Your task to perform on an android device: delete location history Image 0: 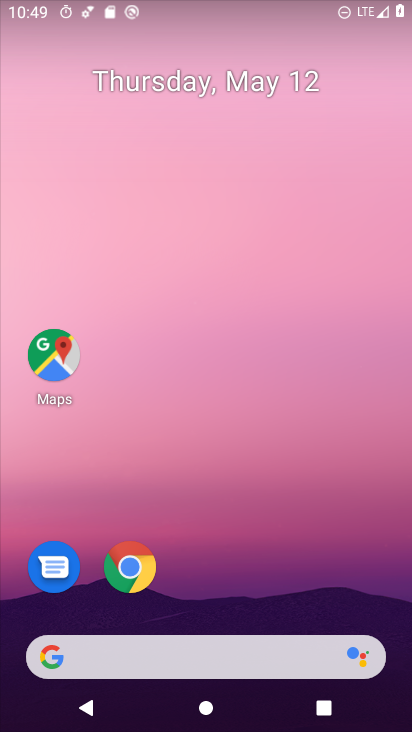
Step 0: drag from (186, 601) to (167, 207)
Your task to perform on an android device: delete location history Image 1: 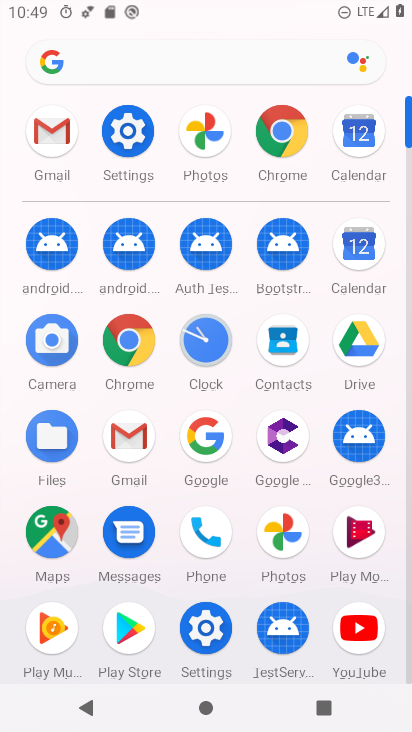
Step 1: click (127, 143)
Your task to perform on an android device: delete location history Image 2: 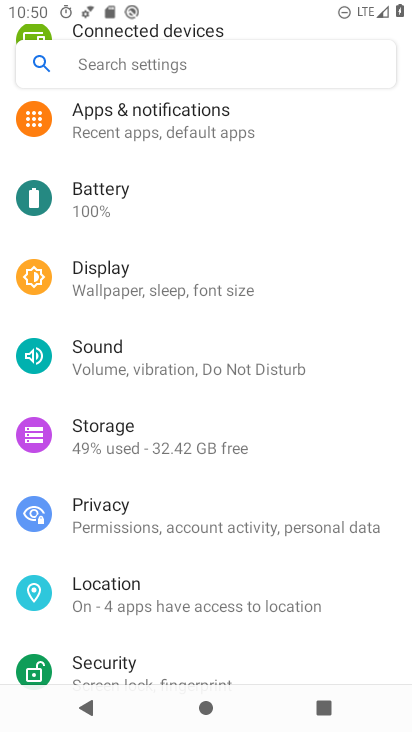
Step 2: click (149, 590)
Your task to perform on an android device: delete location history Image 3: 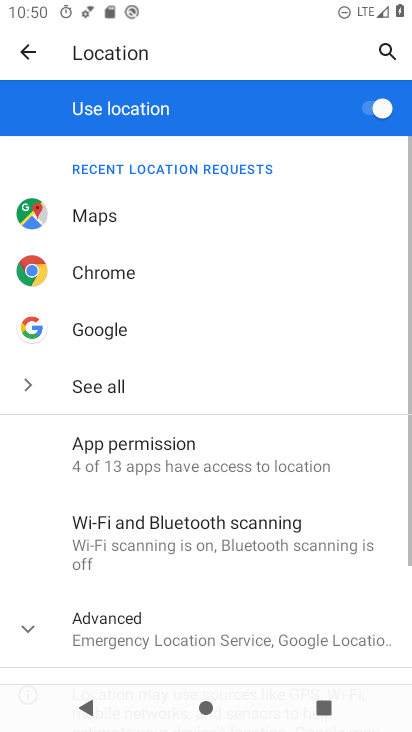
Step 3: click (124, 625)
Your task to perform on an android device: delete location history Image 4: 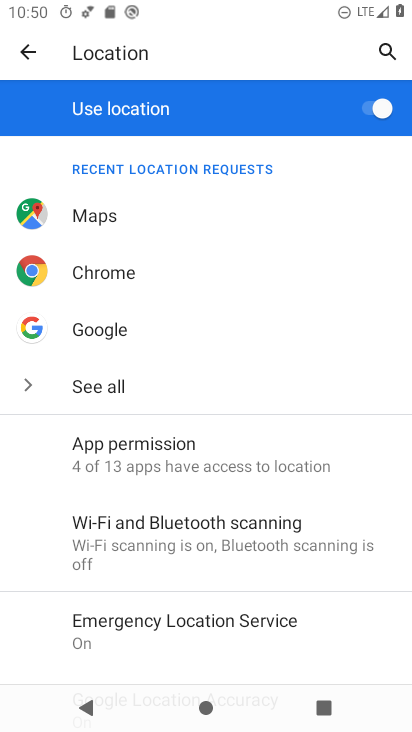
Step 4: drag from (189, 545) to (272, 265)
Your task to perform on an android device: delete location history Image 5: 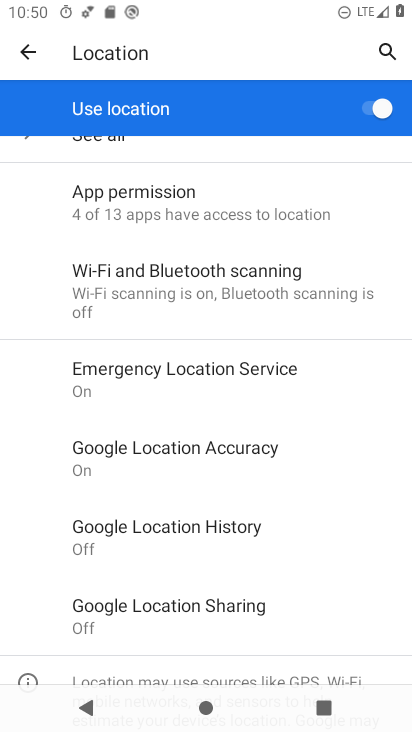
Step 5: click (217, 534)
Your task to perform on an android device: delete location history Image 6: 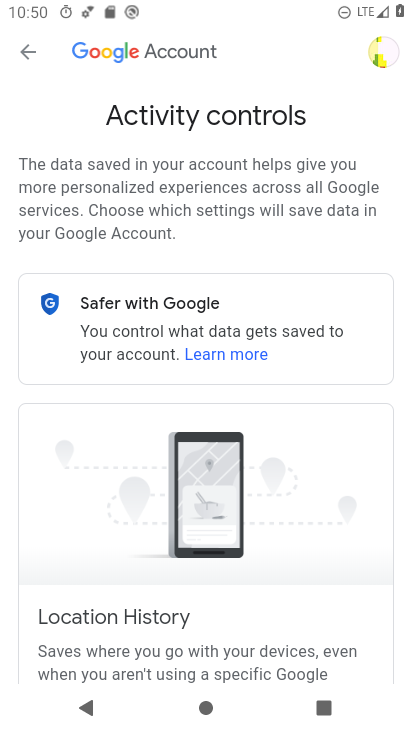
Step 6: drag from (227, 582) to (260, 274)
Your task to perform on an android device: delete location history Image 7: 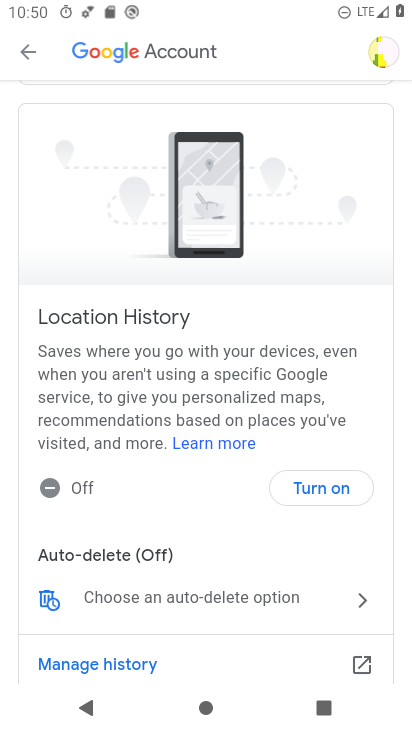
Step 7: click (128, 592)
Your task to perform on an android device: delete location history Image 8: 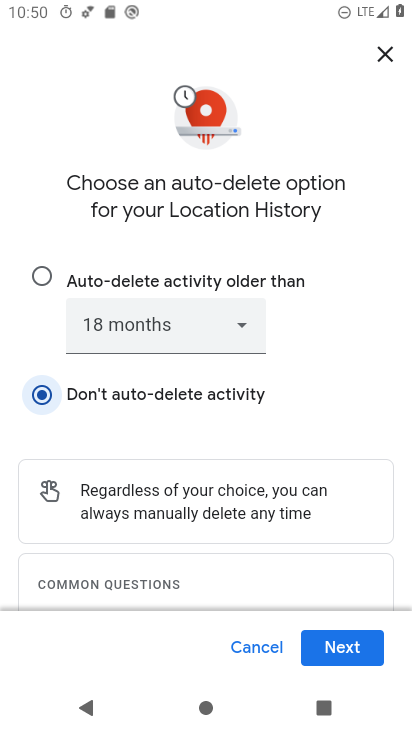
Step 8: click (356, 641)
Your task to perform on an android device: delete location history Image 9: 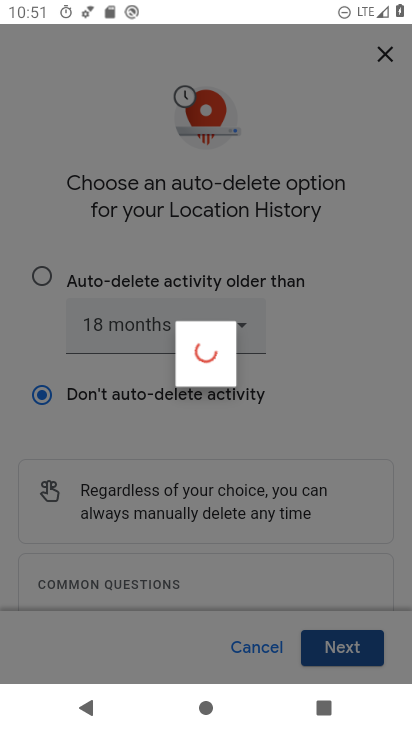
Step 9: drag from (264, 491) to (291, 303)
Your task to perform on an android device: delete location history Image 10: 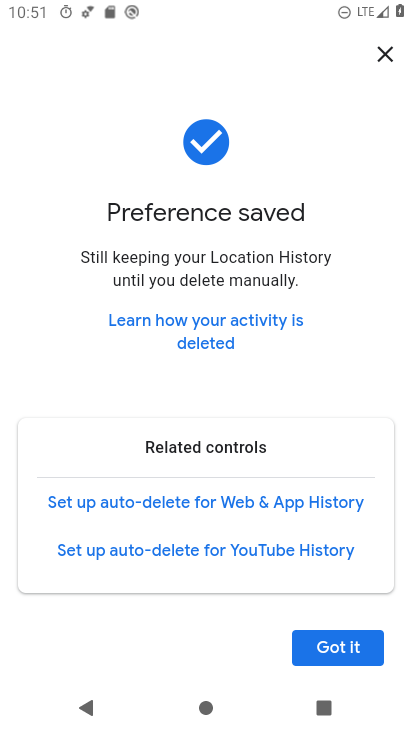
Step 10: click (340, 652)
Your task to perform on an android device: delete location history Image 11: 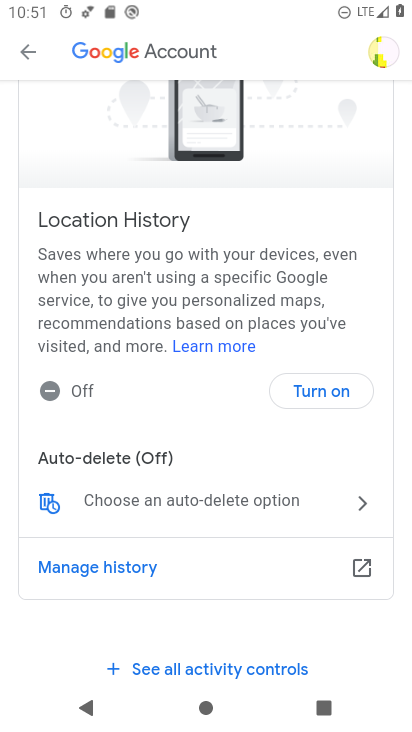
Step 11: task complete